Your task to perform on an android device: toggle location history Image 0: 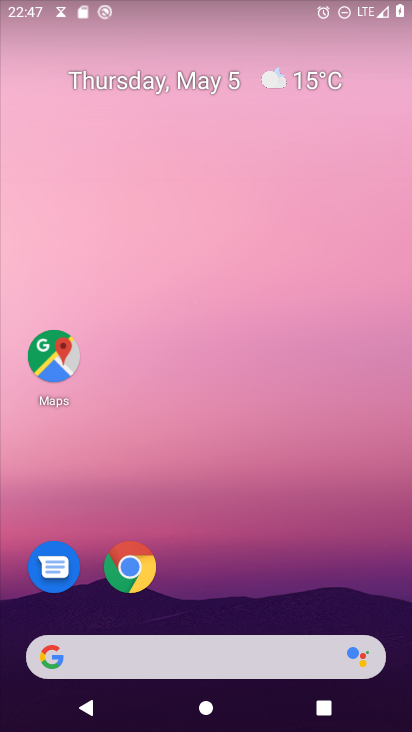
Step 0: drag from (203, 728) to (191, 116)
Your task to perform on an android device: toggle location history Image 1: 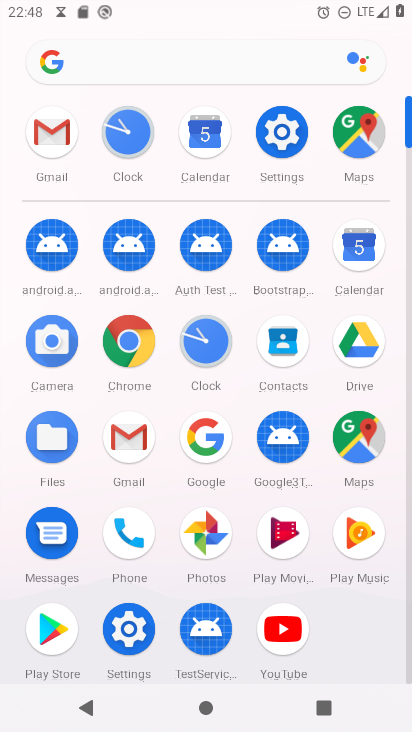
Step 1: click (286, 123)
Your task to perform on an android device: toggle location history Image 2: 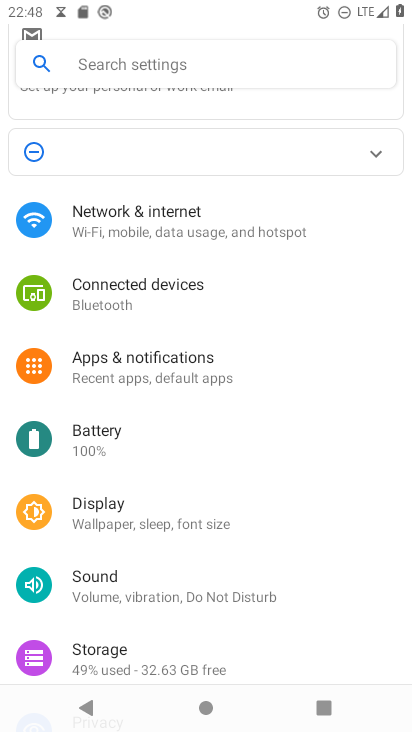
Step 2: drag from (173, 657) to (186, 291)
Your task to perform on an android device: toggle location history Image 3: 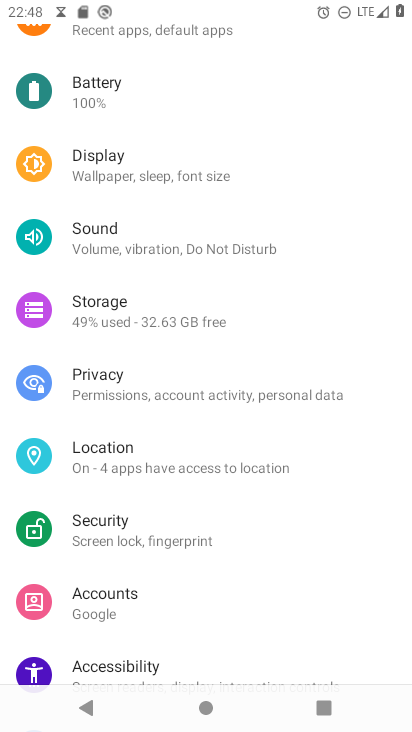
Step 3: click (142, 471)
Your task to perform on an android device: toggle location history Image 4: 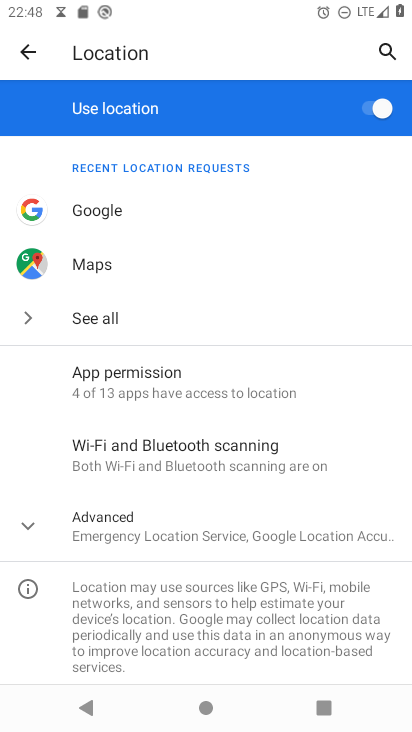
Step 4: click (124, 523)
Your task to perform on an android device: toggle location history Image 5: 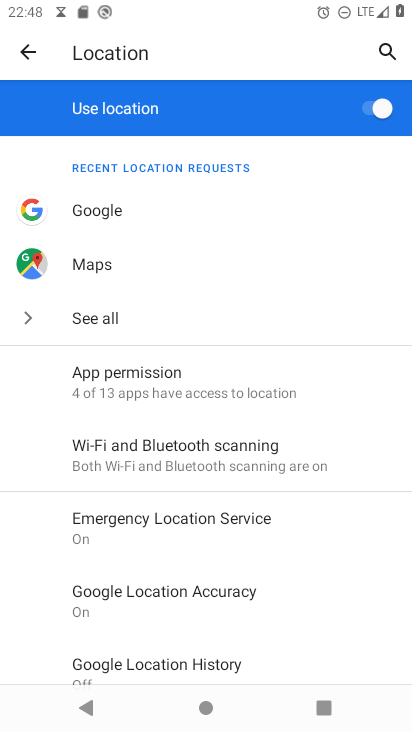
Step 5: click (127, 664)
Your task to perform on an android device: toggle location history Image 6: 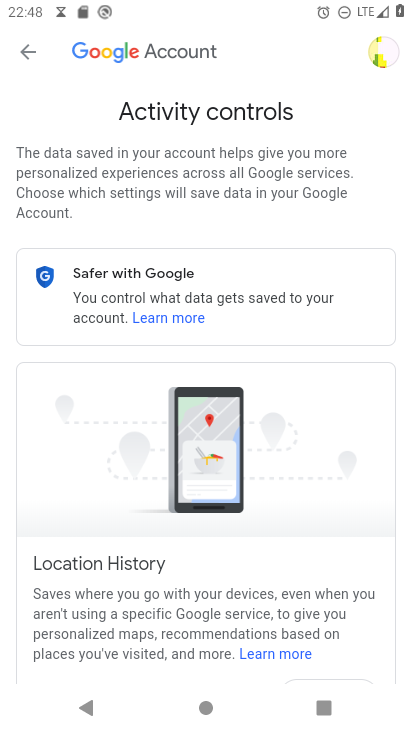
Step 6: drag from (168, 647) to (158, 264)
Your task to perform on an android device: toggle location history Image 7: 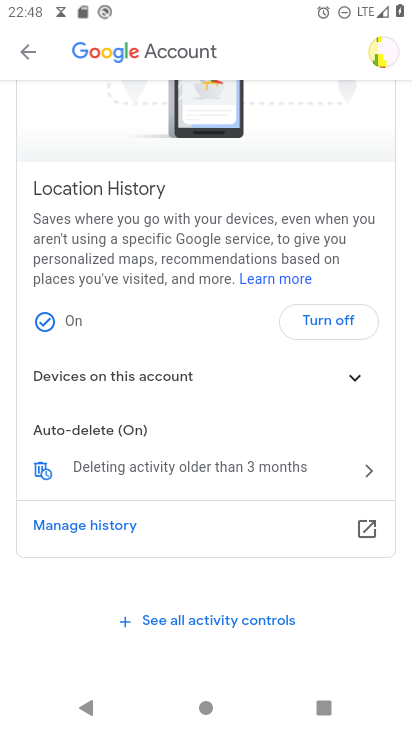
Step 7: click (324, 312)
Your task to perform on an android device: toggle location history Image 8: 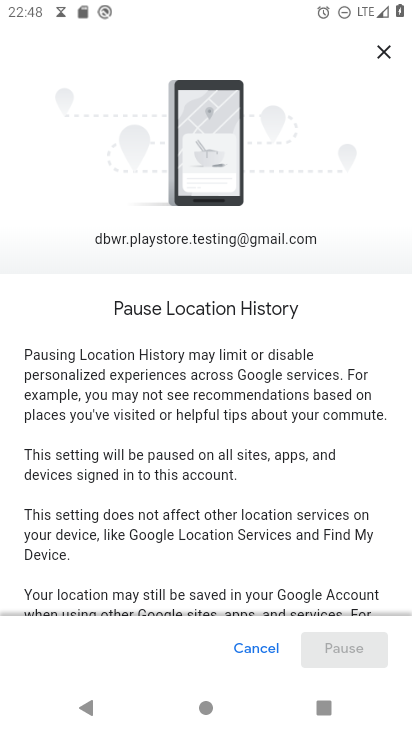
Step 8: drag from (210, 579) to (221, 101)
Your task to perform on an android device: toggle location history Image 9: 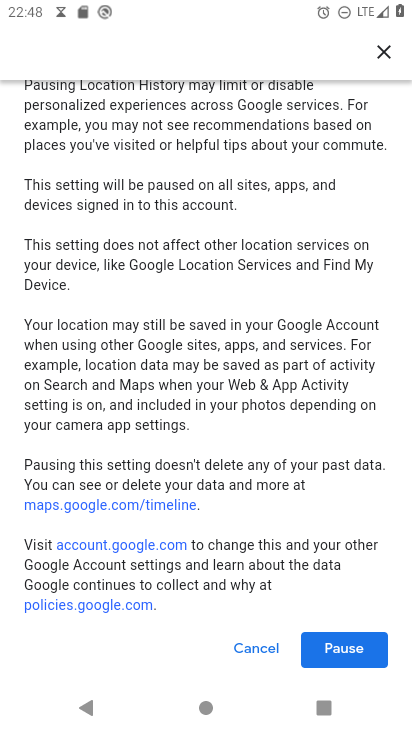
Step 9: click (340, 640)
Your task to perform on an android device: toggle location history Image 10: 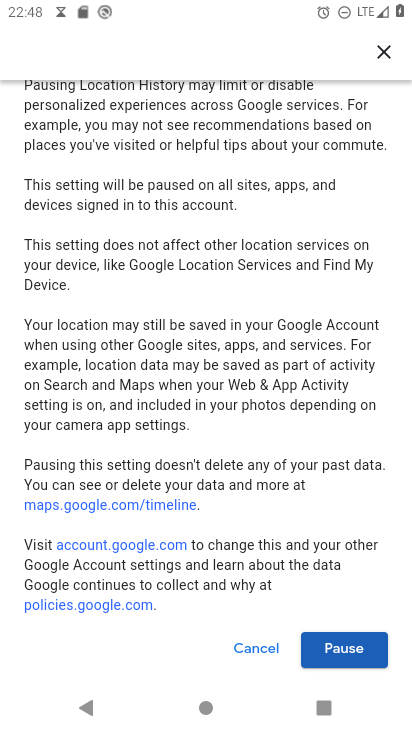
Step 10: click (344, 651)
Your task to perform on an android device: toggle location history Image 11: 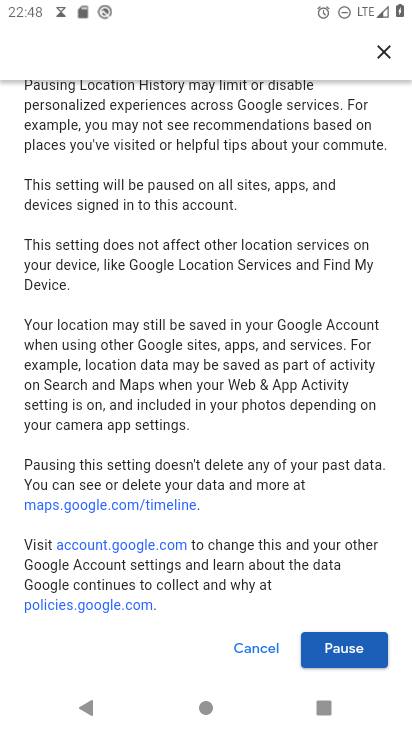
Step 11: click (344, 651)
Your task to perform on an android device: toggle location history Image 12: 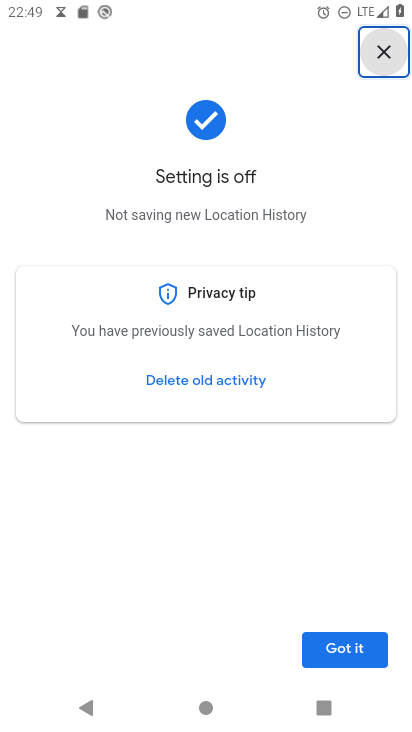
Step 12: task complete